Your task to perform on an android device: Do I have any events today? Image 0: 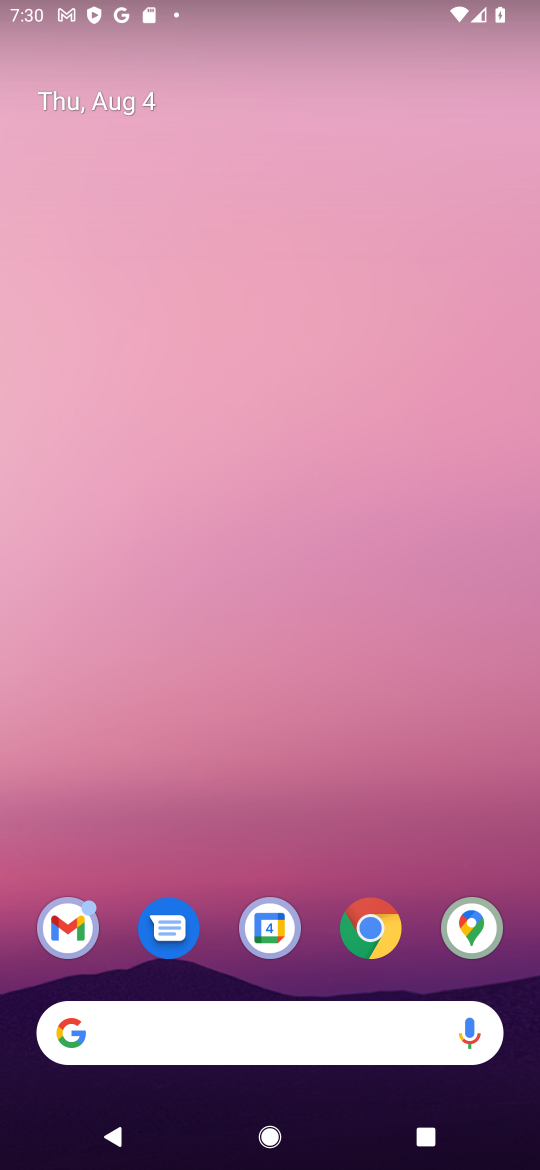
Step 0: drag from (205, 966) to (292, 116)
Your task to perform on an android device: Do I have any events today? Image 1: 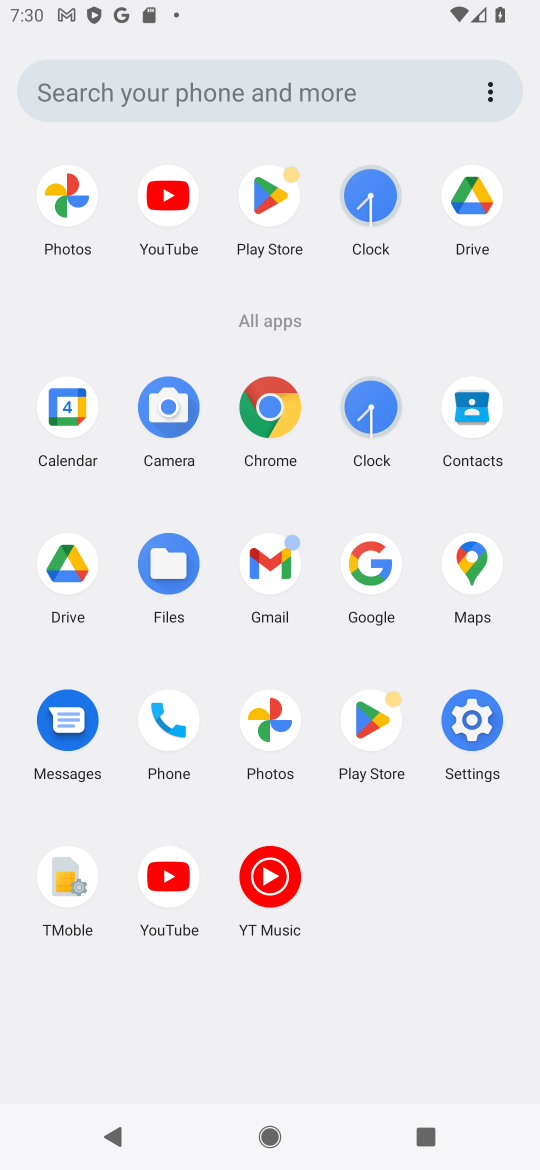
Step 1: click (53, 440)
Your task to perform on an android device: Do I have any events today? Image 2: 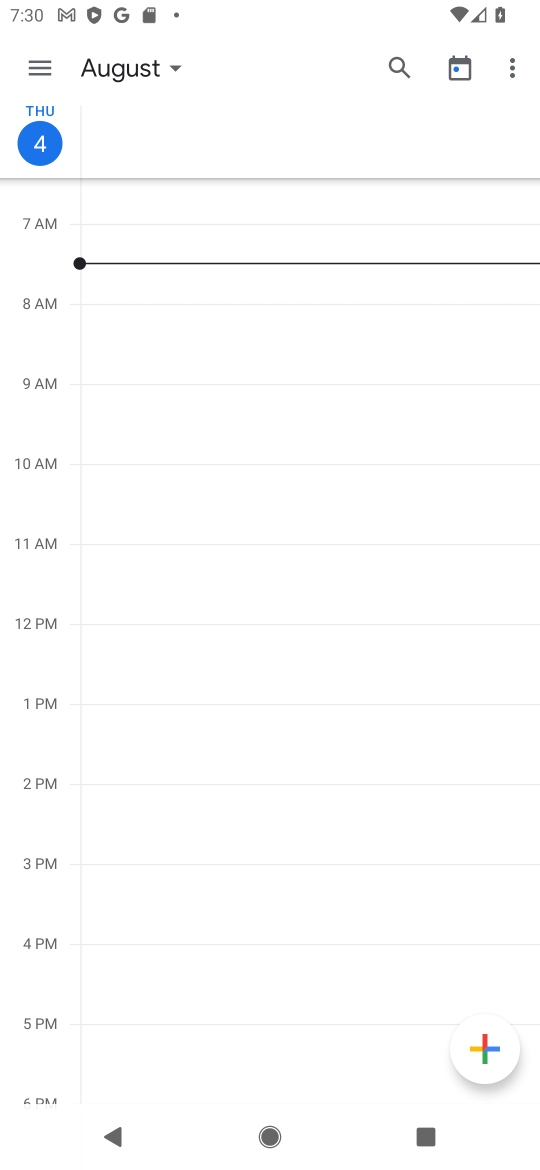
Step 2: click (55, 69)
Your task to perform on an android device: Do I have any events today? Image 3: 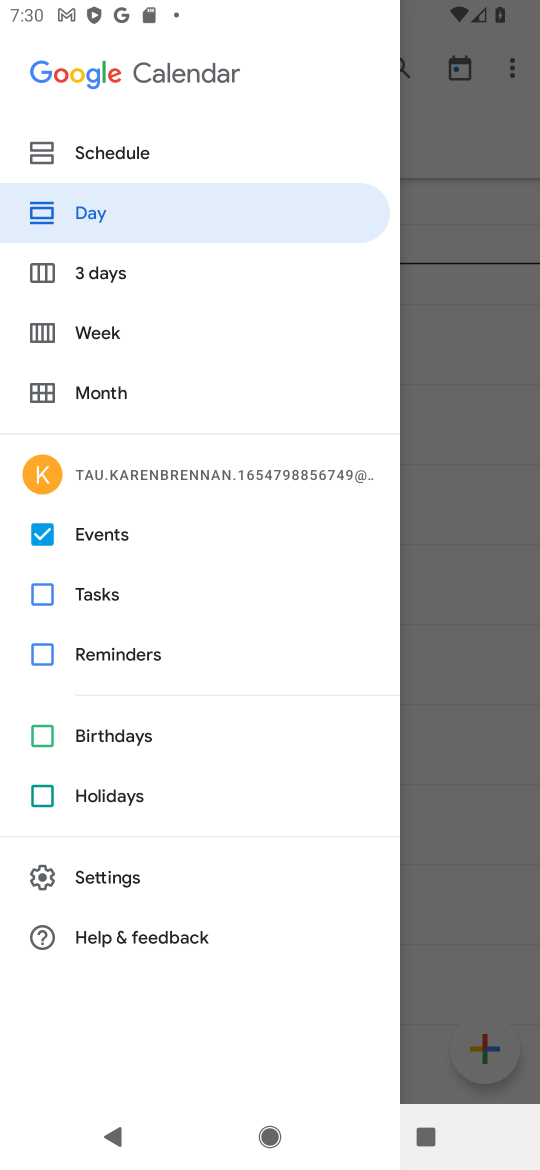
Step 3: click (358, 189)
Your task to perform on an android device: Do I have any events today? Image 4: 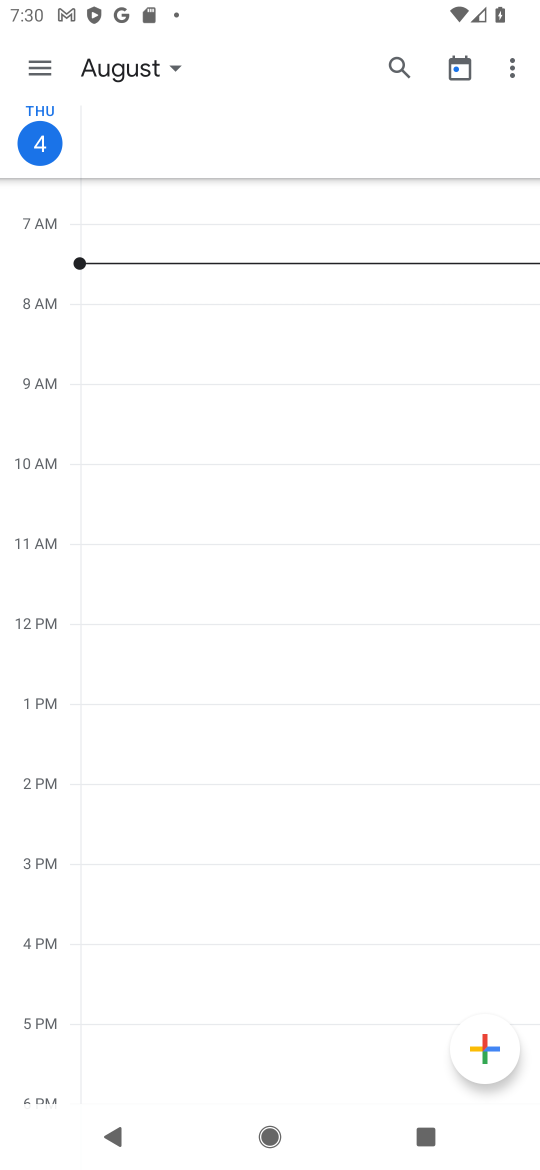
Step 4: task complete